Your task to perform on an android device: toggle translation in the chrome app Image 0: 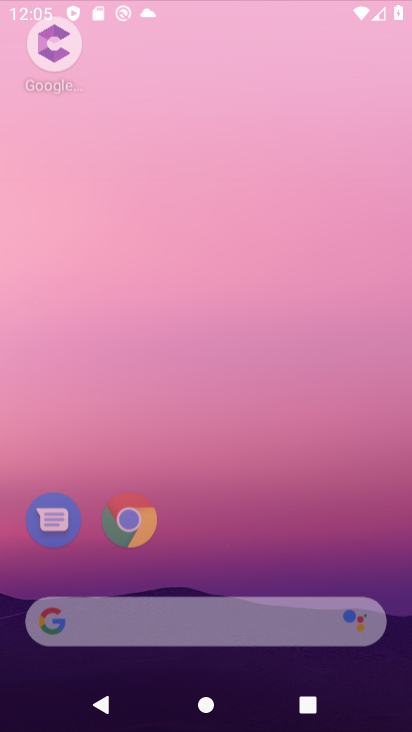
Step 0: click (354, 201)
Your task to perform on an android device: toggle translation in the chrome app Image 1: 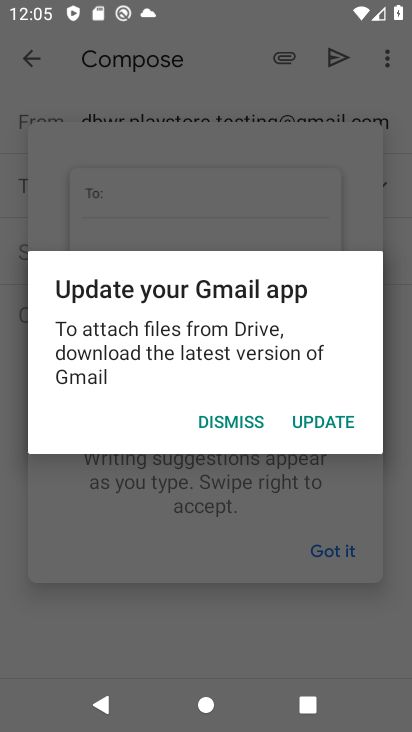
Step 1: press home button
Your task to perform on an android device: toggle translation in the chrome app Image 2: 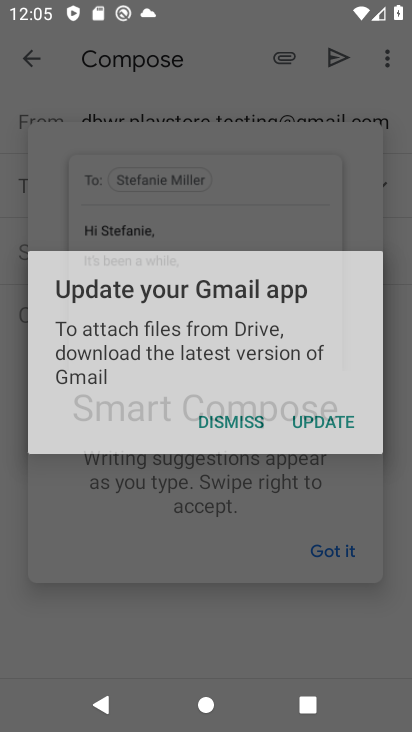
Step 2: press home button
Your task to perform on an android device: toggle translation in the chrome app Image 3: 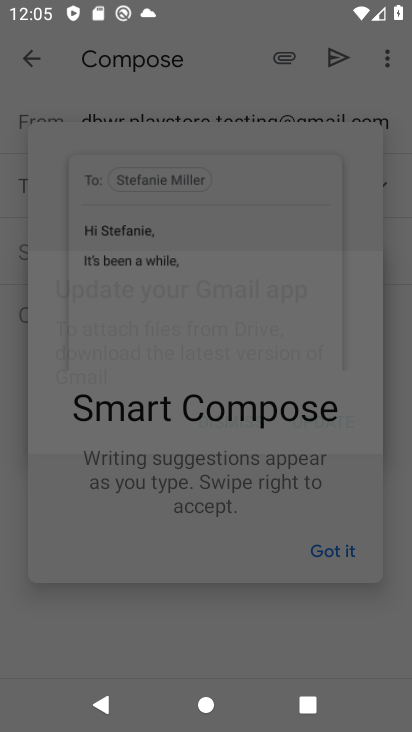
Step 3: click (342, 54)
Your task to perform on an android device: toggle translation in the chrome app Image 4: 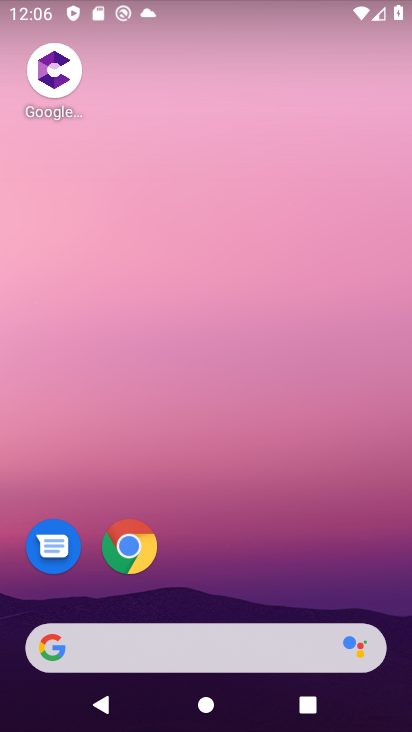
Step 4: drag from (250, 532) to (202, 1)
Your task to perform on an android device: toggle translation in the chrome app Image 5: 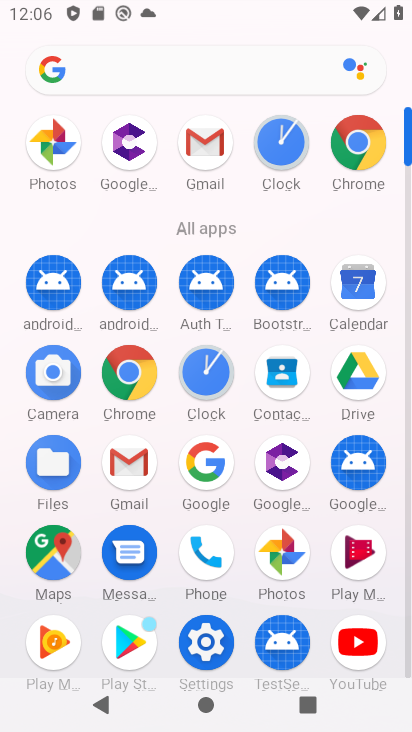
Step 5: click (129, 419)
Your task to perform on an android device: toggle translation in the chrome app Image 6: 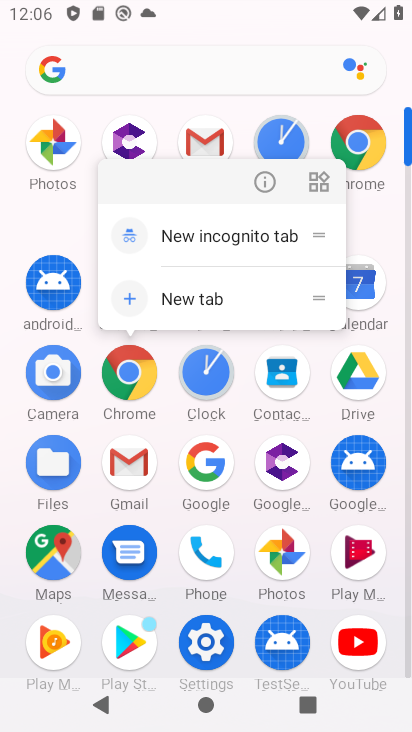
Step 6: click (269, 163)
Your task to perform on an android device: toggle translation in the chrome app Image 7: 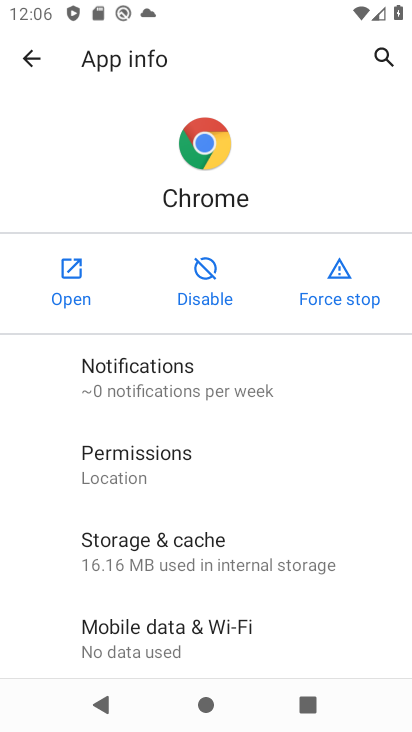
Step 7: click (73, 285)
Your task to perform on an android device: toggle translation in the chrome app Image 8: 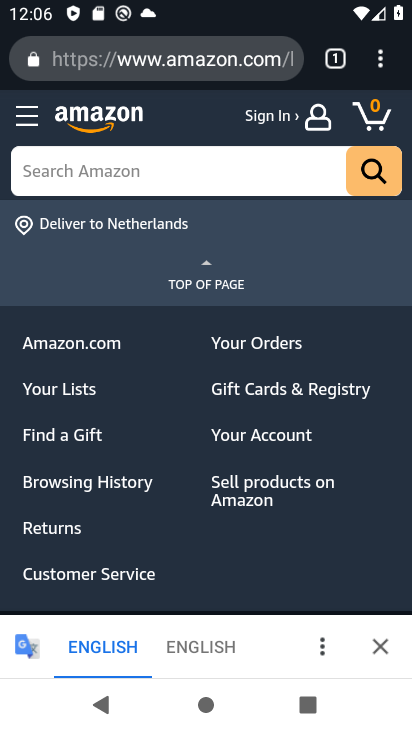
Step 8: click (69, 284)
Your task to perform on an android device: toggle translation in the chrome app Image 9: 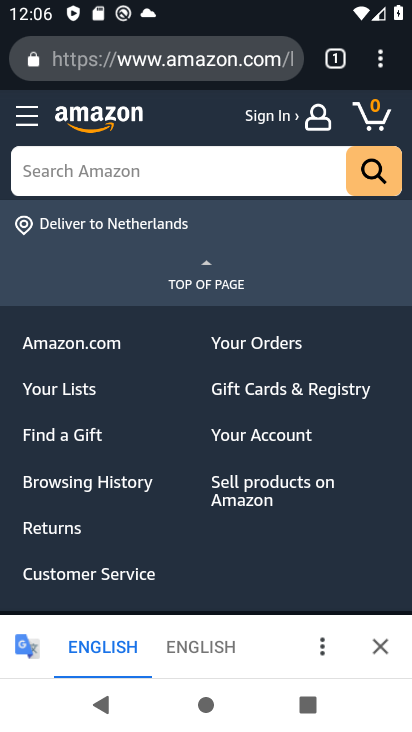
Step 9: drag from (185, 496) to (240, 254)
Your task to perform on an android device: toggle translation in the chrome app Image 10: 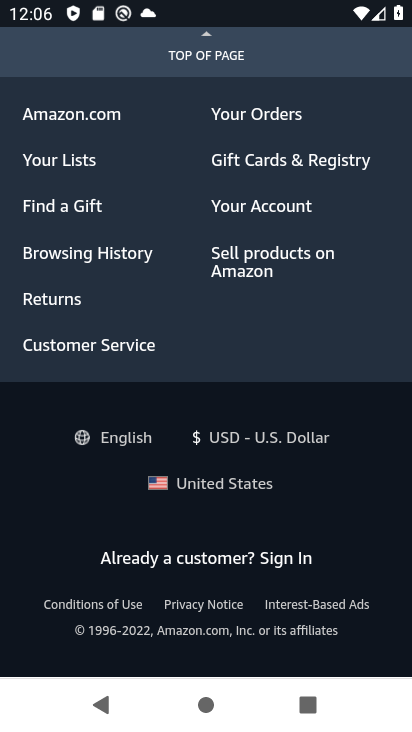
Step 10: drag from (309, 282) to (362, 731)
Your task to perform on an android device: toggle translation in the chrome app Image 11: 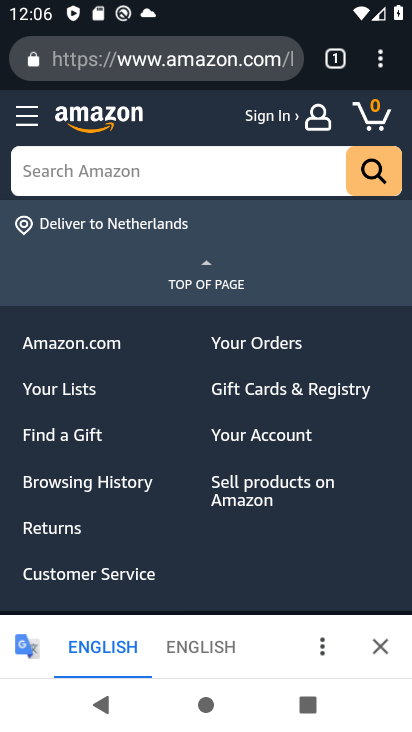
Step 11: drag from (376, 53) to (236, 580)
Your task to perform on an android device: toggle translation in the chrome app Image 12: 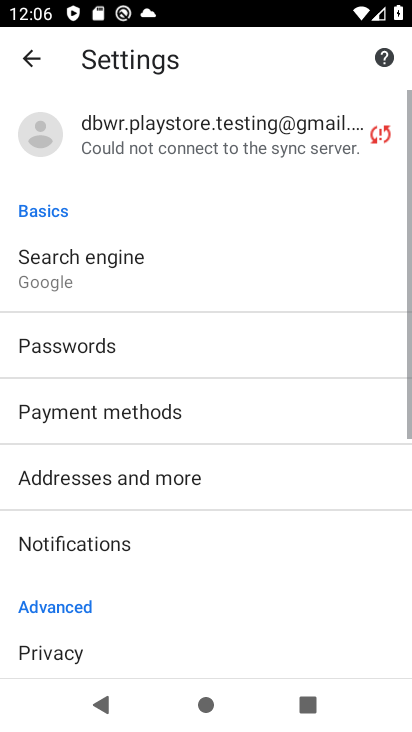
Step 12: drag from (216, 539) to (253, 119)
Your task to perform on an android device: toggle translation in the chrome app Image 13: 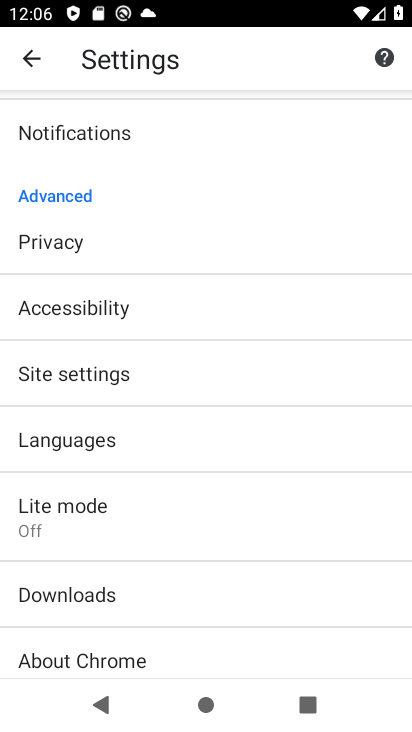
Step 13: click (88, 425)
Your task to perform on an android device: toggle translation in the chrome app Image 14: 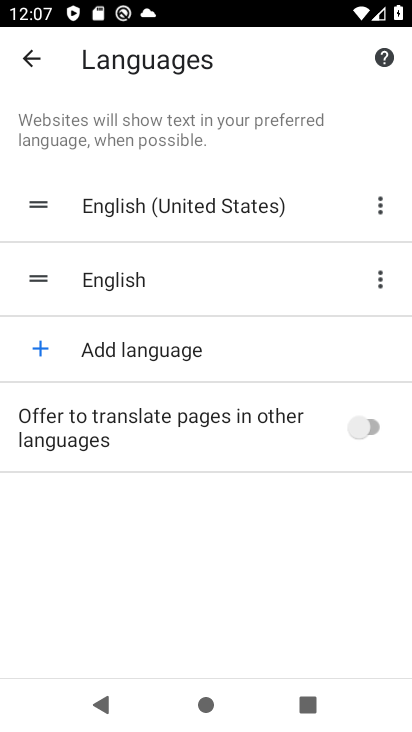
Step 14: drag from (228, 568) to (317, 287)
Your task to perform on an android device: toggle translation in the chrome app Image 15: 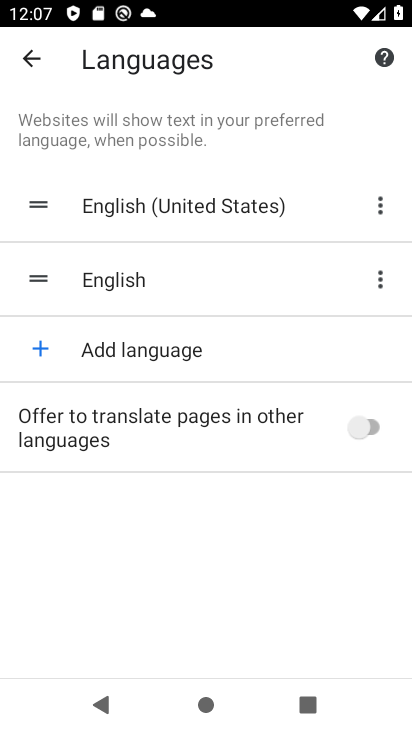
Step 15: click (285, 414)
Your task to perform on an android device: toggle translation in the chrome app Image 16: 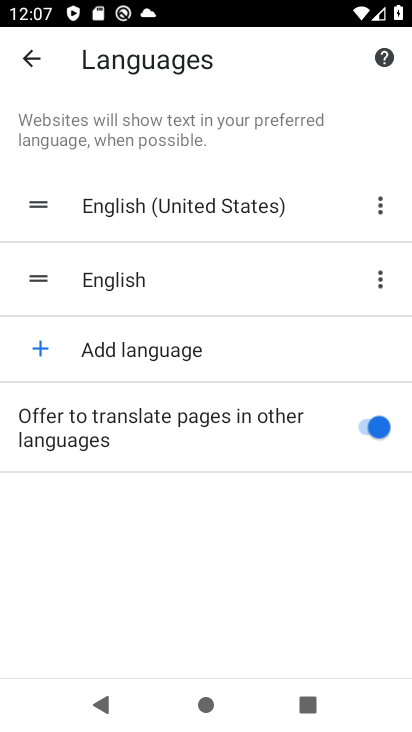
Step 16: task complete